Your task to perform on an android device: toggle data saver in the chrome app Image 0: 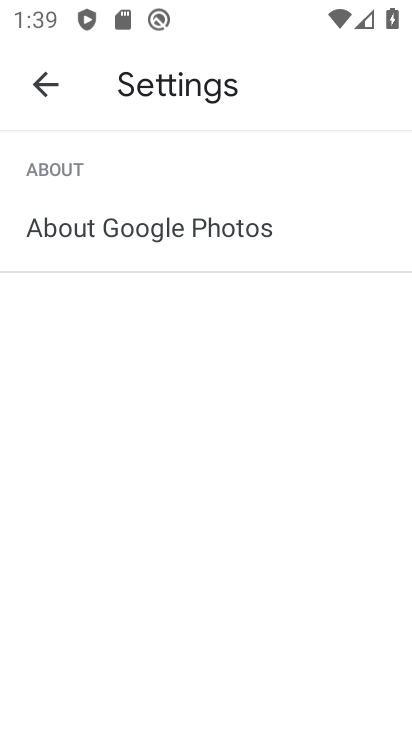
Step 0: press home button
Your task to perform on an android device: toggle data saver in the chrome app Image 1: 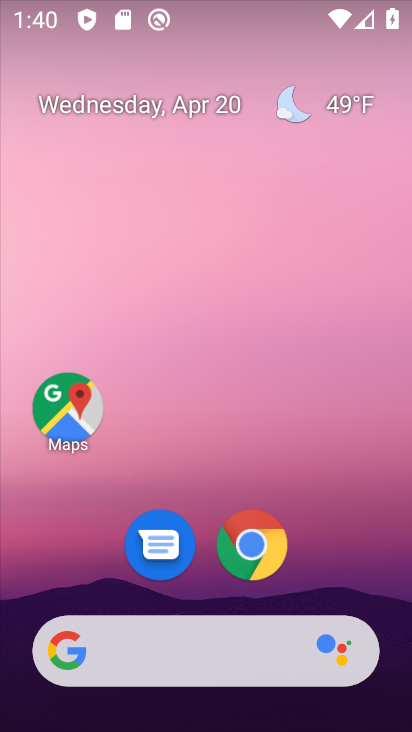
Step 1: click (250, 544)
Your task to perform on an android device: toggle data saver in the chrome app Image 2: 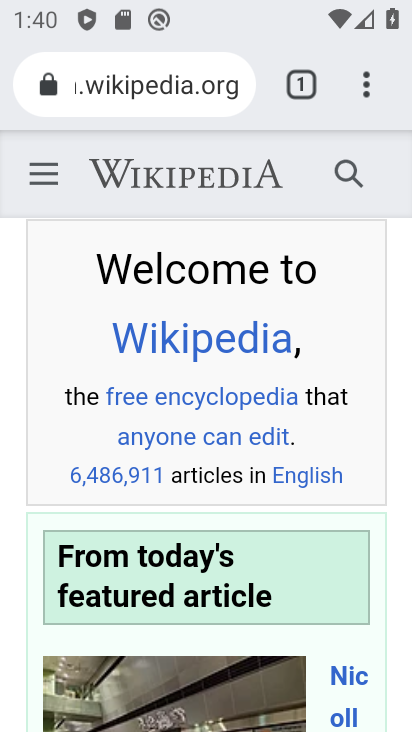
Step 2: click (369, 79)
Your task to perform on an android device: toggle data saver in the chrome app Image 3: 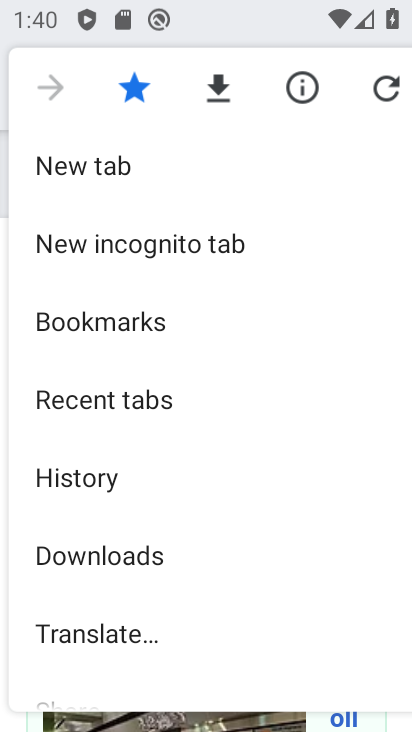
Step 3: drag from (194, 552) to (269, 383)
Your task to perform on an android device: toggle data saver in the chrome app Image 4: 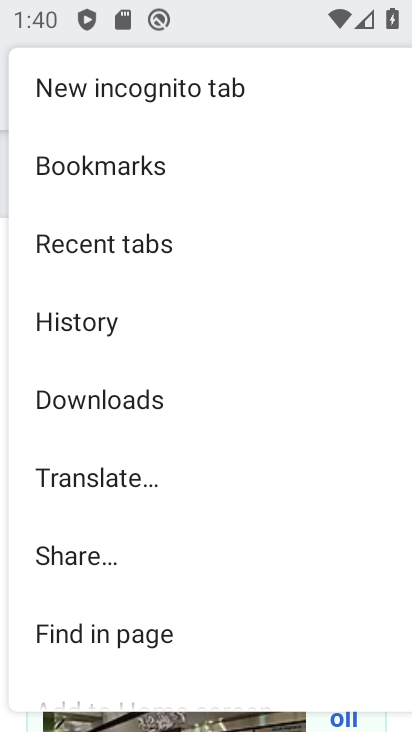
Step 4: drag from (194, 531) to (259, 329)
Your task to perform on an android device: toggle data saver in the chrome app Image 5: 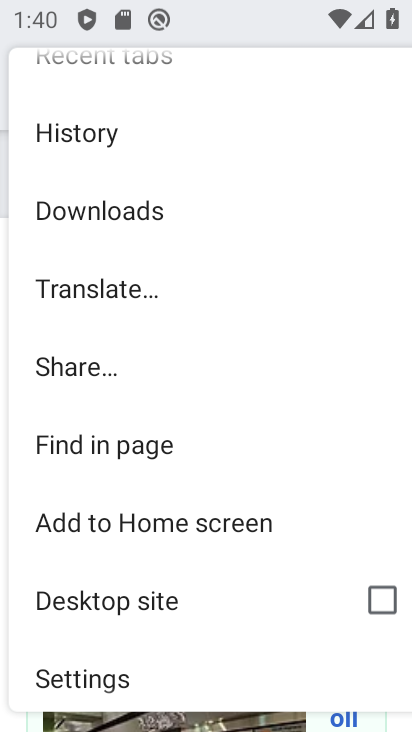
Step 5: click (97, 686)
Your task to perform on an android device: toggle data saver in the chrome app Image 6: 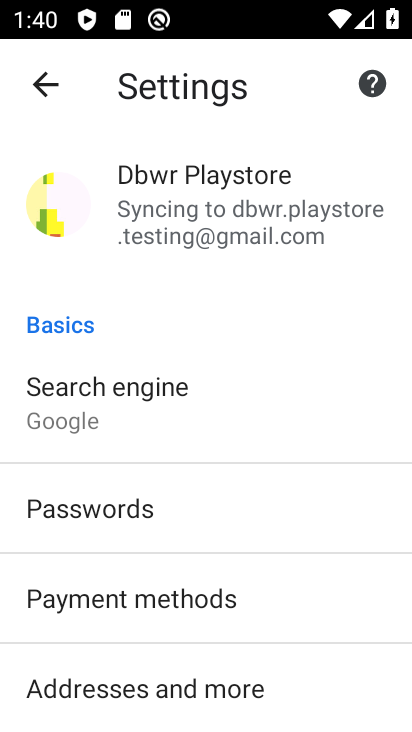
Step 6: drag from (177, 567) to (239, 415)
Your task to perform on an android device: toggle data saver in the chrome app Image 7: 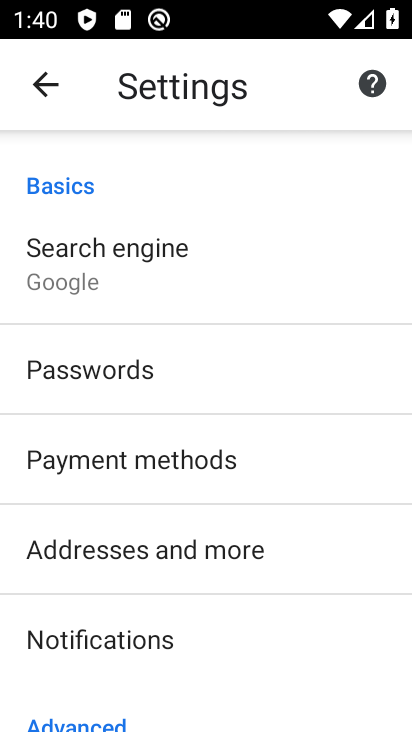
Step 7: drag from (167, 623) to (231, 450)
Your task to perform on an android device: toggle data saver in the chrome app Image 8: 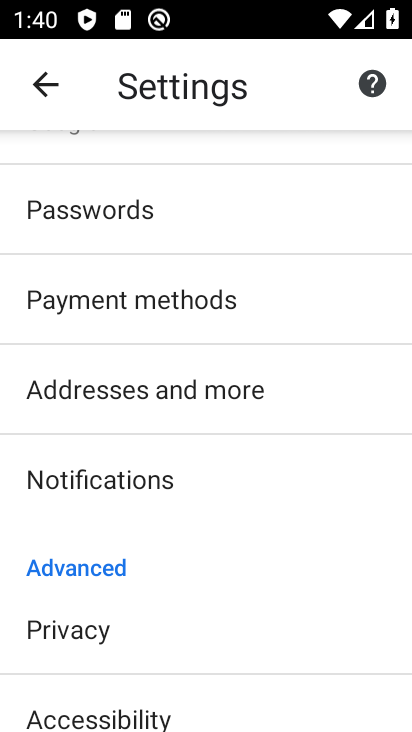
Step 8: drag from (151, 588) to (210, 430)
Your task to perform on an android device: toggle data saver in the chrome app Image 9: 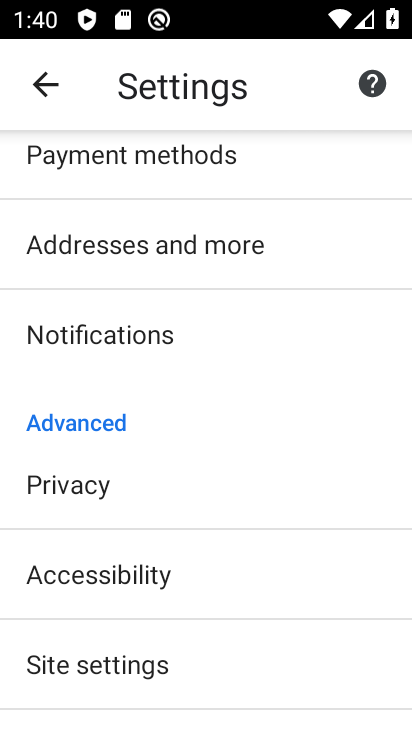
Step 9: drag from (217, 640) to (268, 521)
Your task to perform on an android device: toggle data saver in the chrome app Image 10: 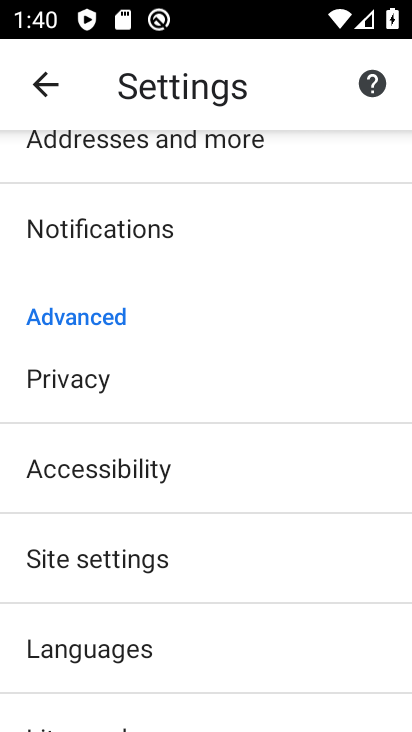
Step 10: drag from (174, 657) to (217, 528)
Your task to perform on an android device: toggle data saver in the chrome app Image 11: 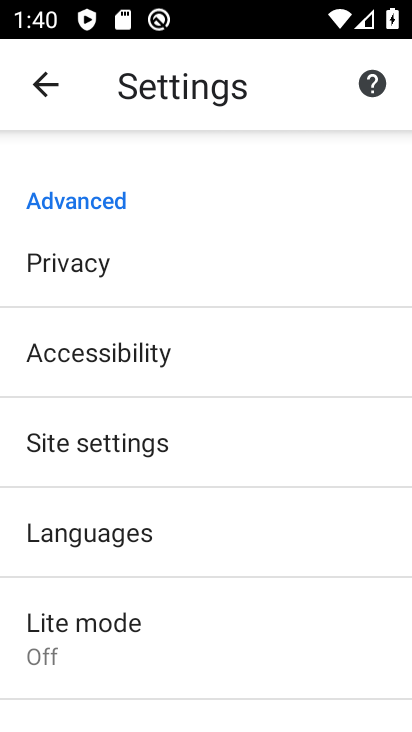
Step 11: click (106, 648)
Your task to perform on an android device: toggle data saver in the chrome app Image 12: 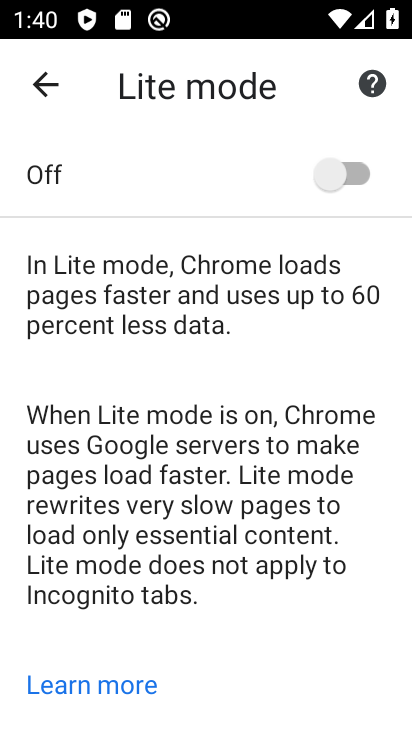
Step 12: click (341, 163)
Your task to perform on an android device: toggle data saver in the chrome app Image 13: 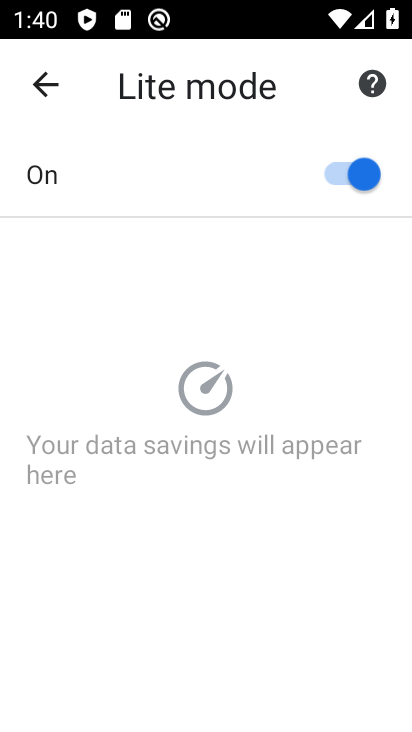
Step 13: task complete